Your task to perform on an android device: Clear the shopping cart on walmart.com. Image 0: 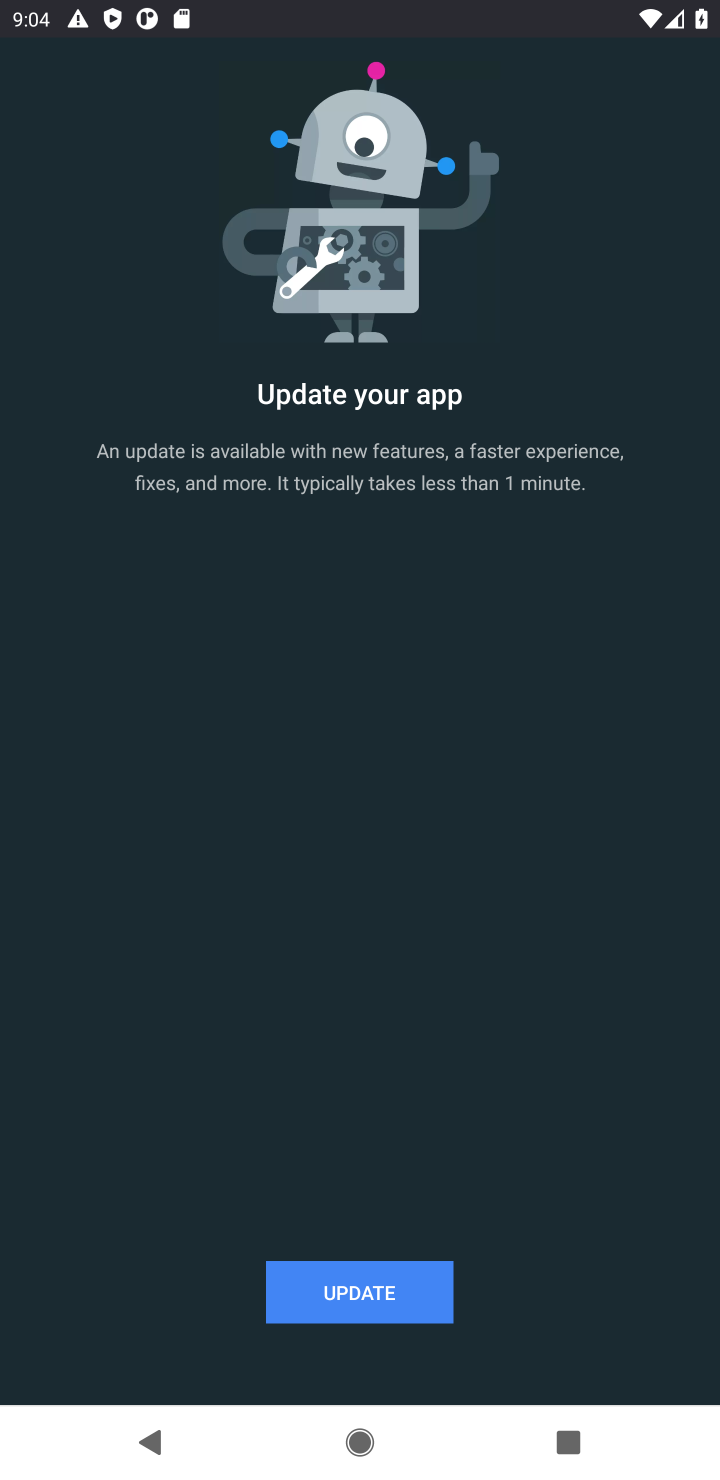
Step 0: task complete